Your task to perform on an android device: allow cookies in the chrome app Image 0: 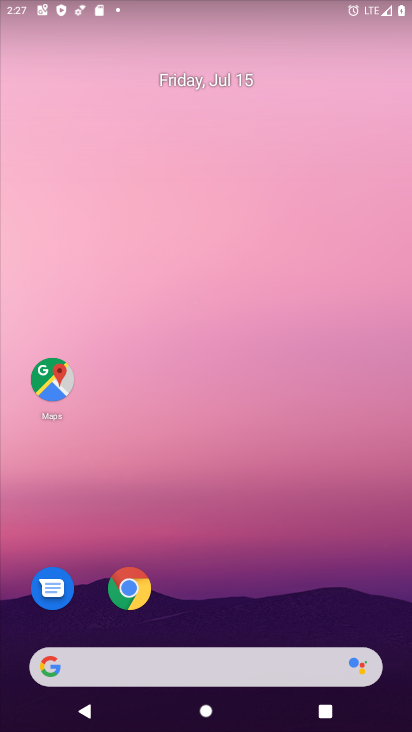
Step 0: click (129, 589)
Your task to perform on an android device: allow cookies in the chrome app Image 1: 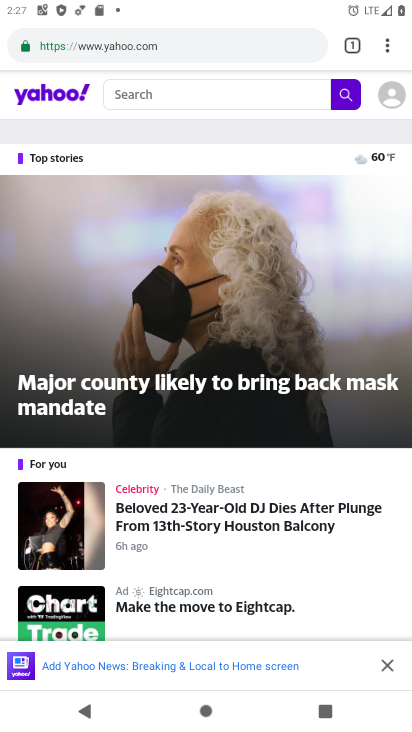
Step 1: click (389, 45)
Your task to perform on an android device: allow cookies in the chrome app Image 2: 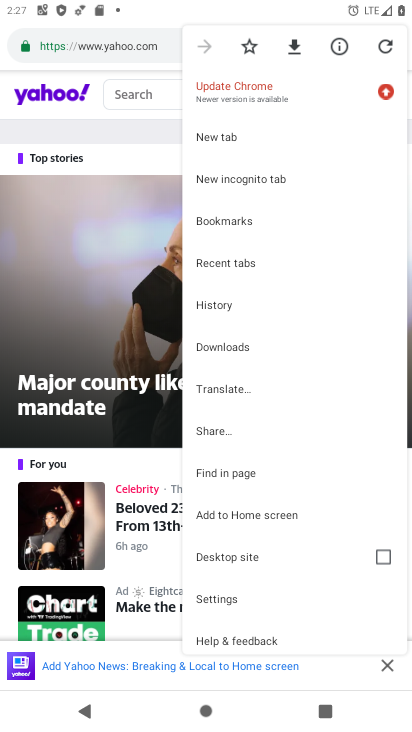
Step 2: click (226, 599)
Your task to perform on an android device: allow cookies in the chrome app Image 3: 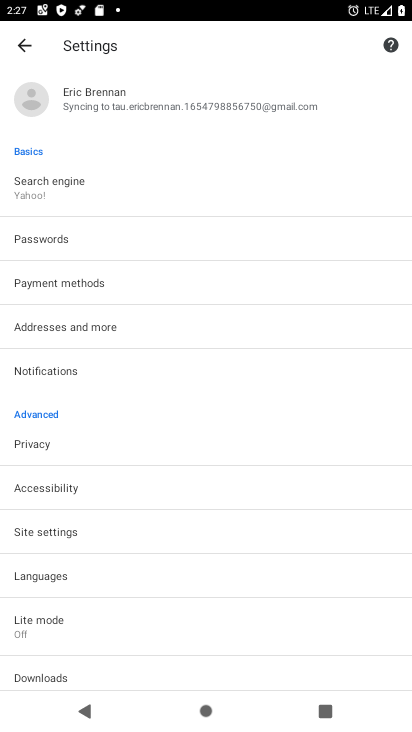
Step 3: click (61, 532)
Your task to perform on an android device: allow cookies in the chrome app Image 4: 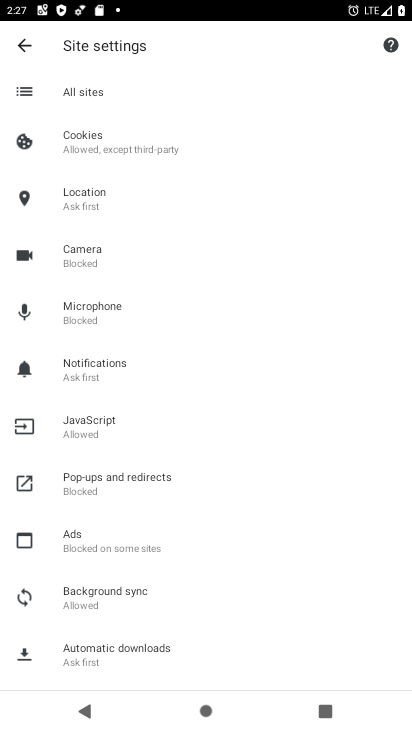
Step 4: click (160, 148)
Your task to perform on an android device: allow cookies in the chrome app Image 5: 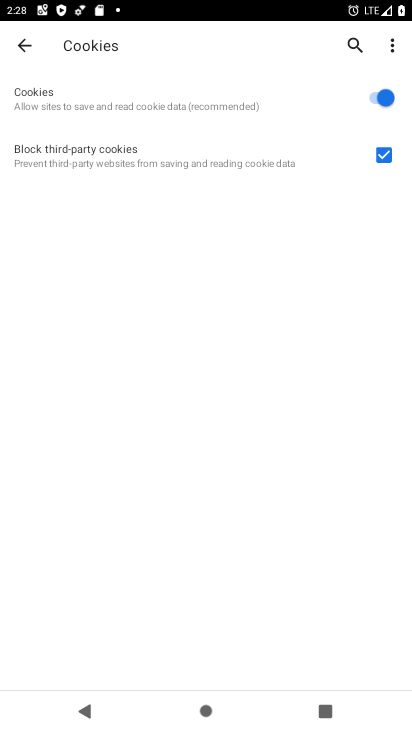
Step 5: task complete